Your task to perform on an android device: Turn on the flashlight Image 0: 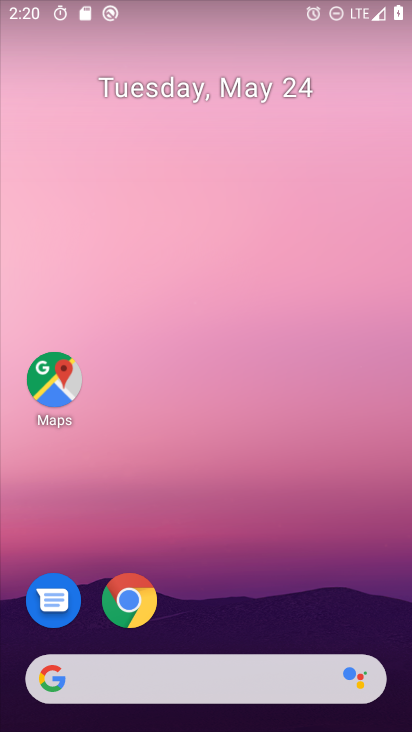
Step 0: drag from (339, 601) to (196, 74)
Your task to perform on an android device: Turn on the flashlight Image 1: 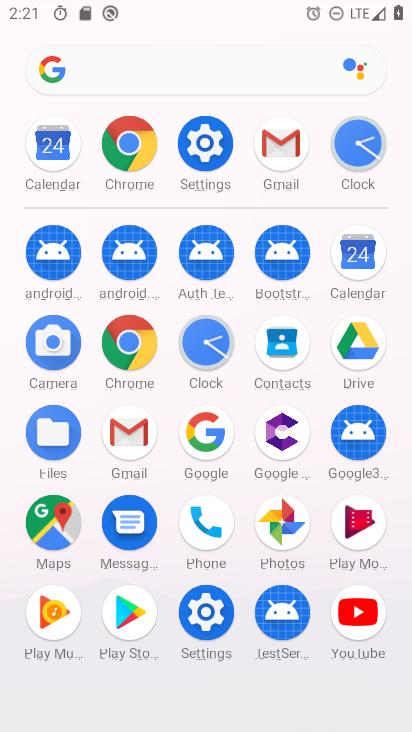
Step 1: click (216, 157)
Your task to perform on an android device: Turn on the flashlight Image 2: 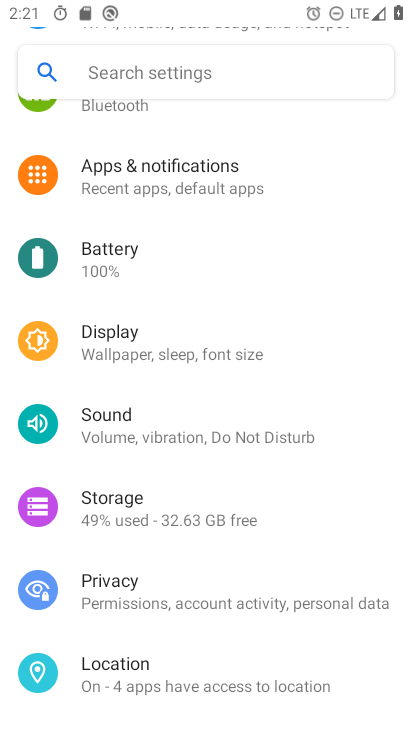
Step 2: drag from (219, 175) to (251, 567)
Your task to perform on an android device: Turn on the flashlight Image 3: 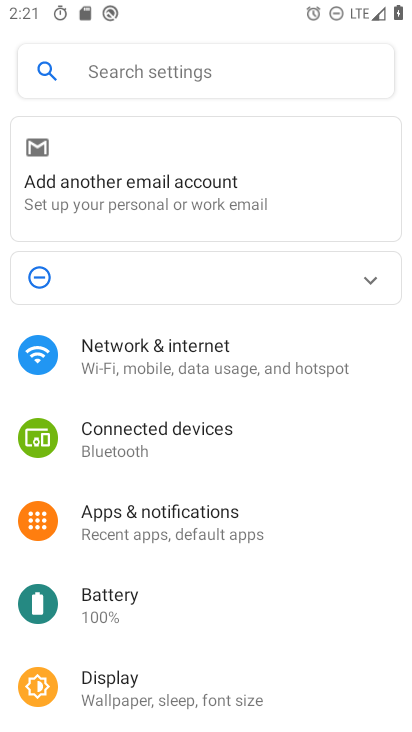
Step 3: drag from (259, 623) to (306, 253)
Your task to perform on an android device: Turn on the flashlight Image 4: 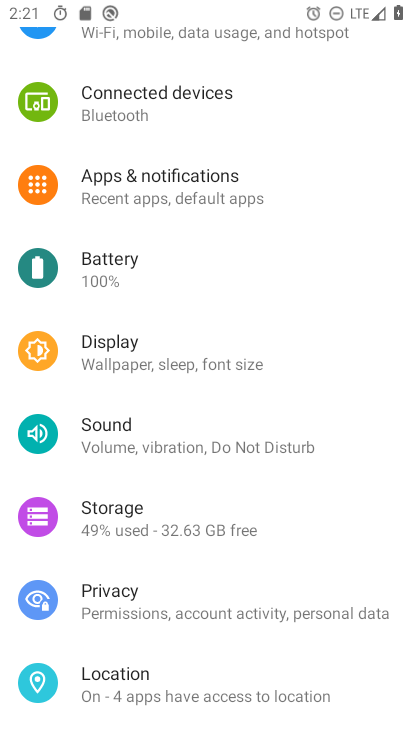
Step 4: drag from (287, 224) to (263, 621)
Your task to perform on an android device: Turn on the flashlight Image 5: 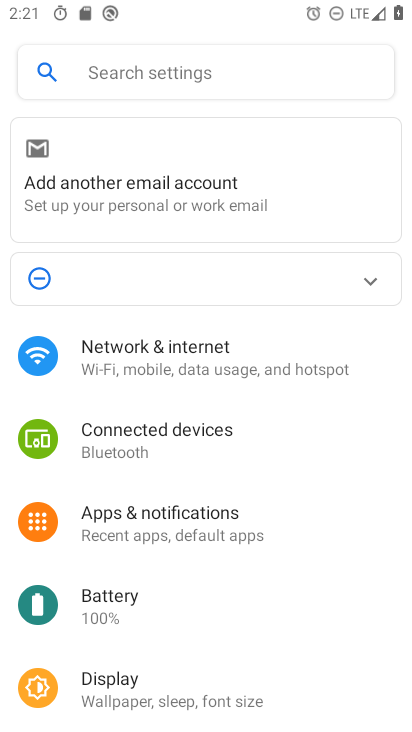
Step 5: click (146, 686)
Your task to perform on an android device: Turn on the flashlight Image 6: 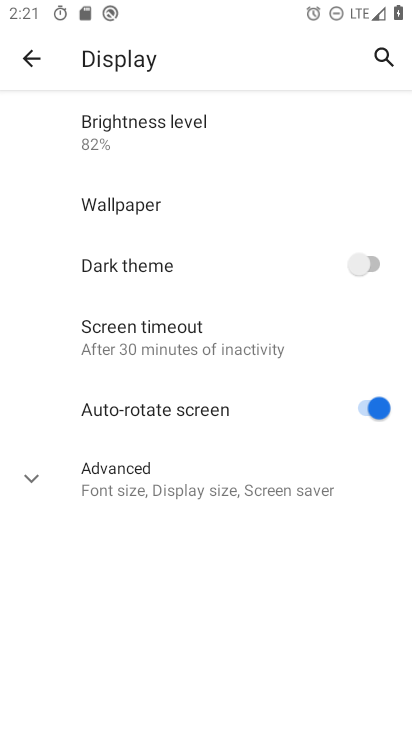
Step 6: task complete